Your task to perform on an android device: Open Yahoo.com Image 0: 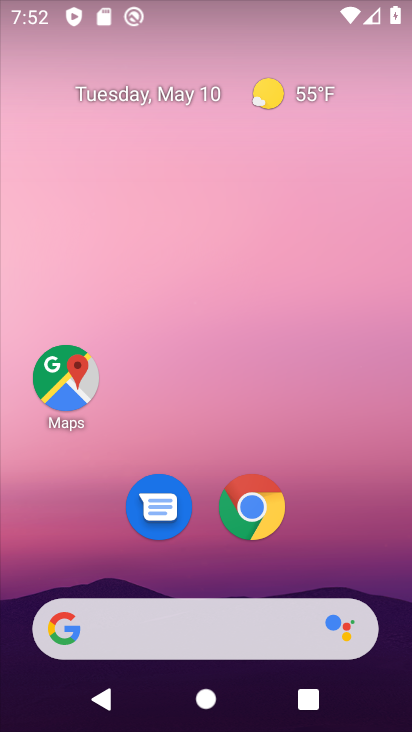
Step 0: drag from (106, 583) to (251, 142)
Your task to perform on an android device: Open Yahoo.com Image 1: 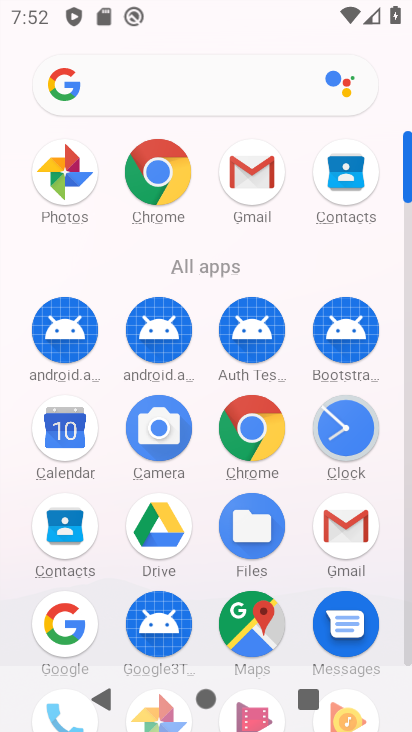
Step 1: click (240, 422)
Your task to perform on an android device: Open Yahoo.com Image 2: 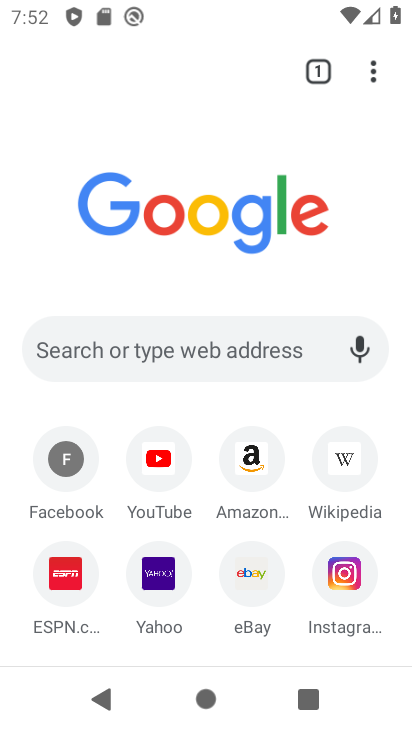
Step 2: click (155, 570)
Your task to perform on an android device: Open Yahoo.com Image 3: 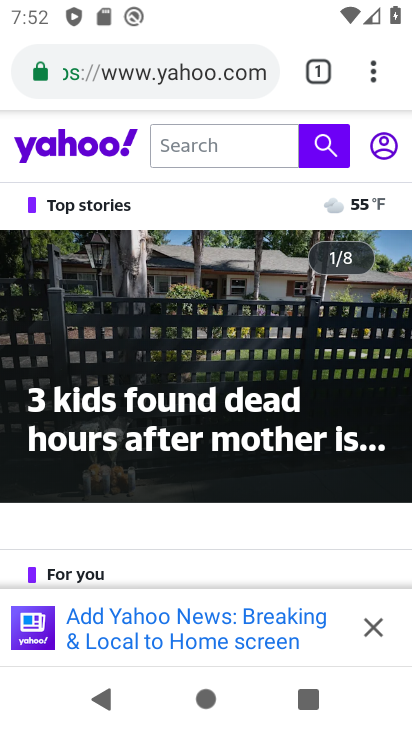
Step 3: task complete